Your task to perform on an android device: Open calendar and show me the first week of next month Image 0: 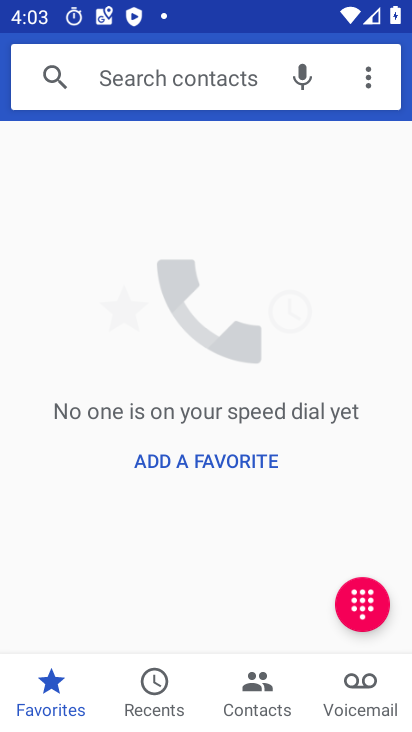
Step 0: drag from (350, 298) to (341, 191)
Your task to perform on an android device: Open calendar and show me the first week of next month Image 1: 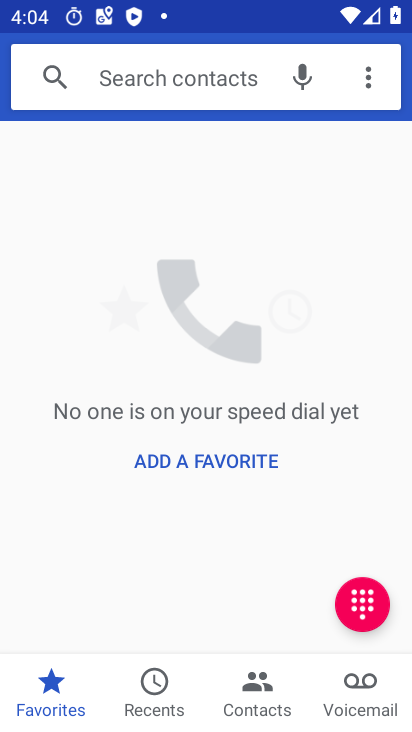
Step 1: press home button
Your task to perform on an android device: Open calendar and show me the first week of next month Image 2: 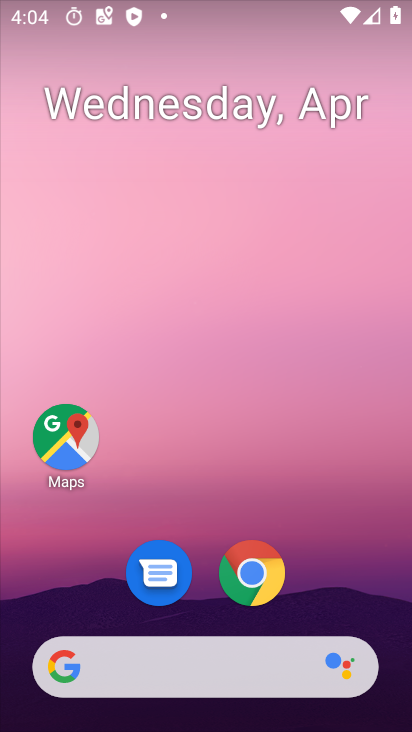
Step 2: drag from (327, 210) to (322, 126)
Your task to perform on an android device: Open calendar and show me the first week of next month Image 3: 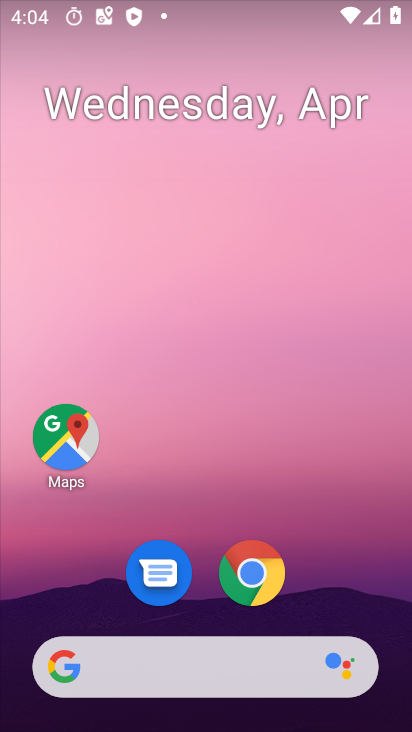
Step 3: click (370, 120)
Your task to perform on an android device: Open calendar and show me the first week of next month Image 4: 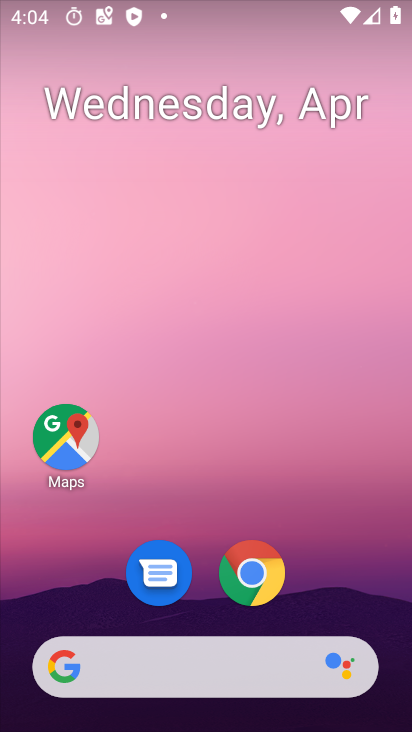
Step 4: drag from (371, 177) to (363, 140)
Your task to perform on an android device: Open calendar and show me the first week of next month Image 5: 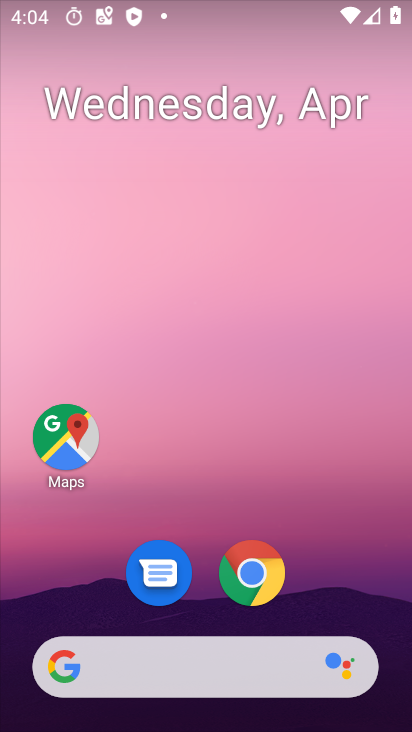
Step 5: click (325, 77)
Your task to perform on an android device: Open calendar and show me the first week of next month Image 6: 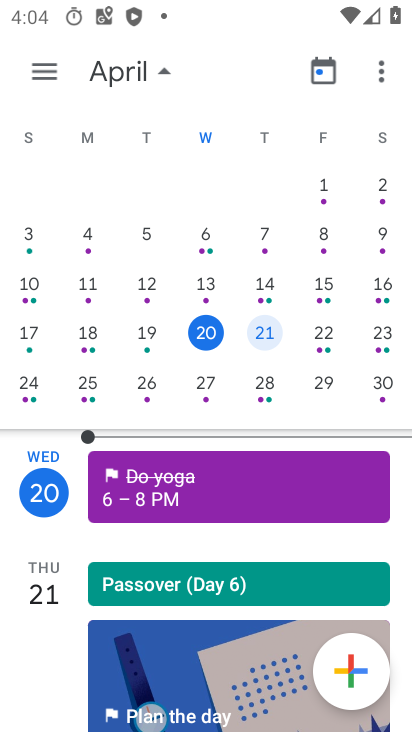
Step 6: click (167, 66)
Your task to perform on an android device: Open calendar and show me the first week of next month Image 7: 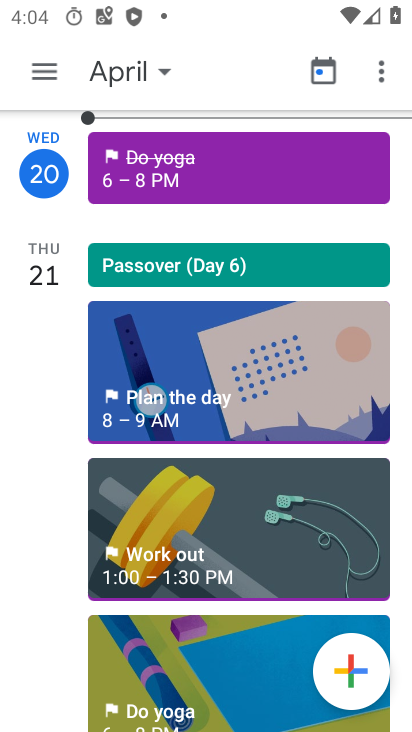
Step 7: click (151, 61)
Your task to perform on an android device: Open calendar and show me the first week of next month Image 8: 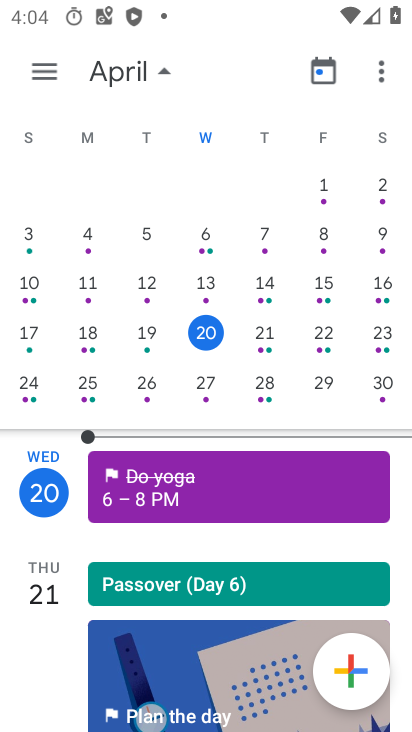
Step 8: click (40, 202)
Your task to perform on an android device: Open calendar and show me the first week of next month Image 9: 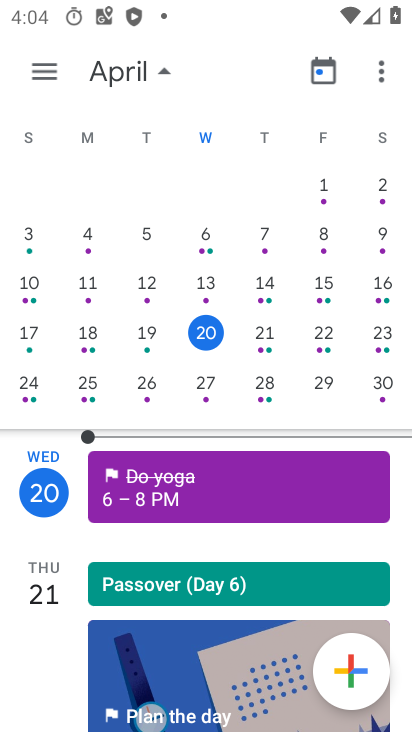
Step 9: drag from (394, 254) to (76, 236)
Your task to perform on an android device: Open calendar and show me the first week of next month Image 10: 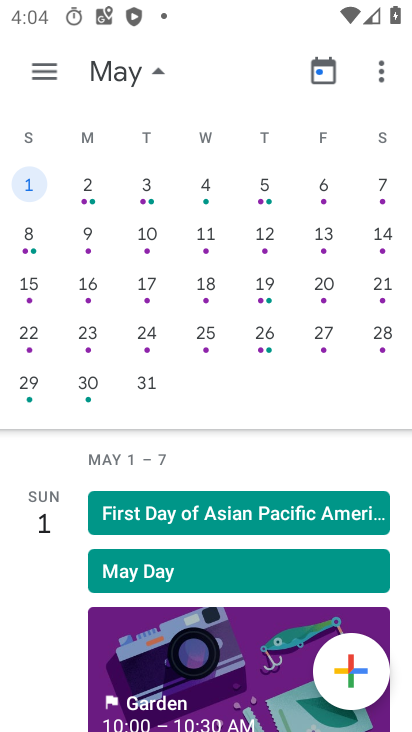
Step 10: click (208, 184)
Your task to perform on an android device: Open calendar and show me the first week of next month Image 11: 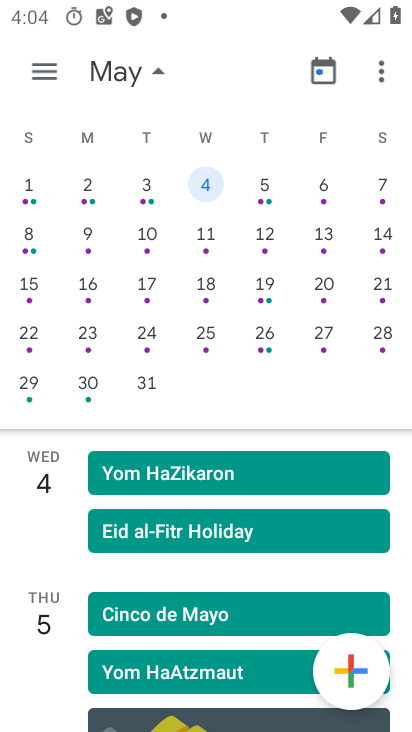
Step 11: task complete